Your task to perform on an android device: add a label to a message in the gmail app Image 0: 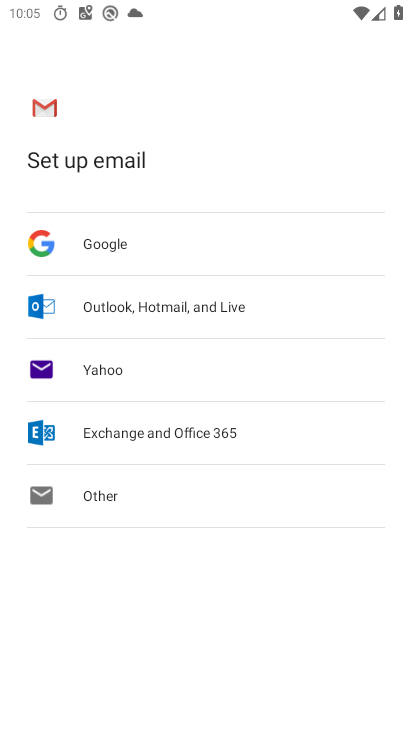
Step 0: press back button
Your task to perform on an android device: add a label to a message in the gmail app Image 1: 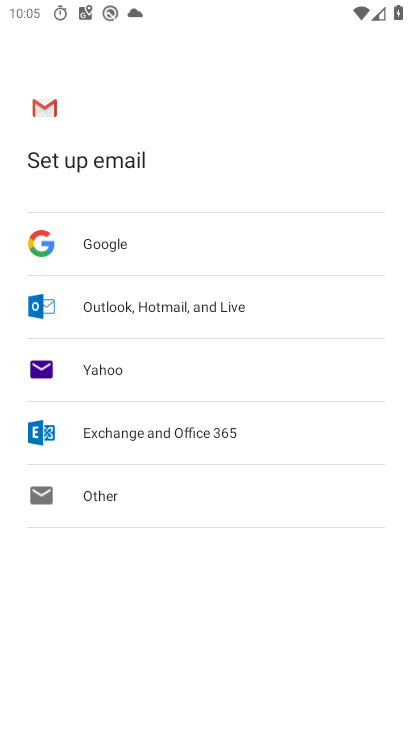
Step 1: press back button
Your task to perform on an android device: add a label to a message in the gmail app Image 2: 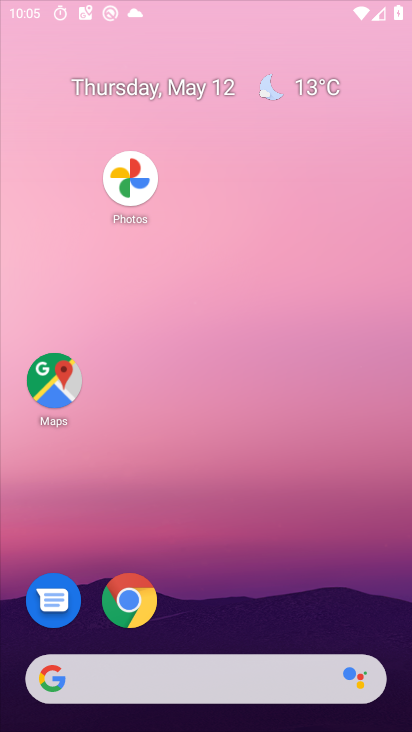
Step 2: press back button
Your task to perform on an android device: add a label to a message in the gmail app Image 3: 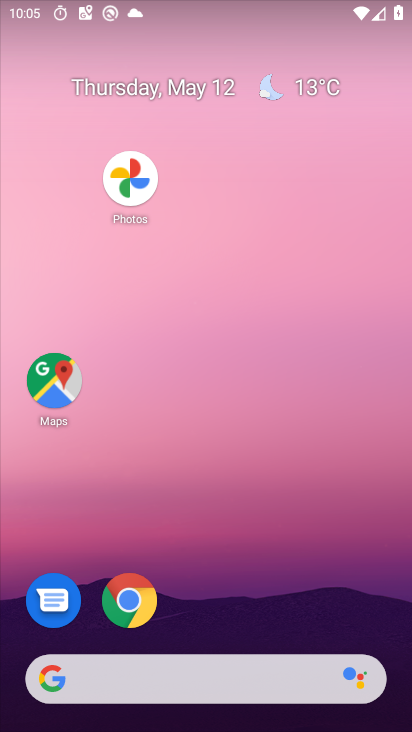
Step 3: drag from (291, 509) to (110, 42)
Your task to perform on an android device: add a label to a message in the gmail app Image 4: 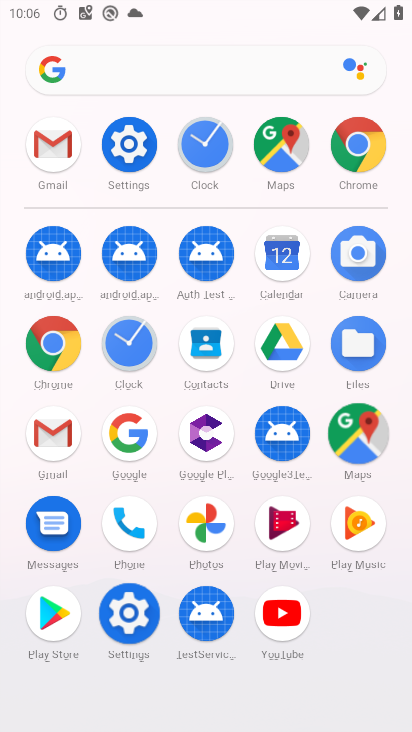
Step 4: click (56, 420)
Your task to perform on an android device: add a label to a message in the gmail app Image 5: 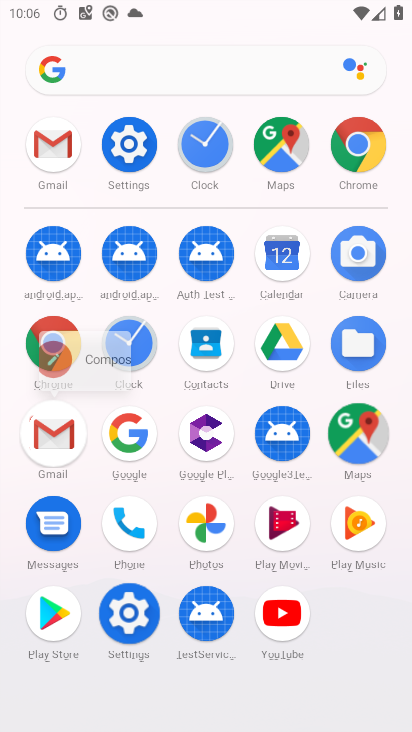
Step 5: click (51, 421)
Your task to perform on an android device: add a label to a message in the gmail app Image 6: 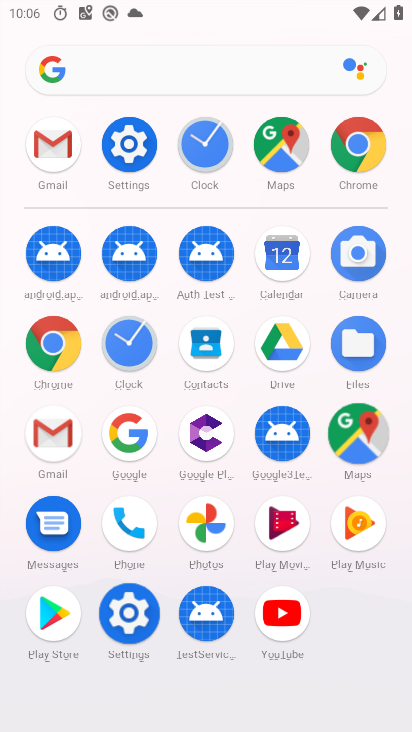
Step 6: click (46, 140)
Your task to perform on an android device: add a label to a message in the gmail app Image 7: 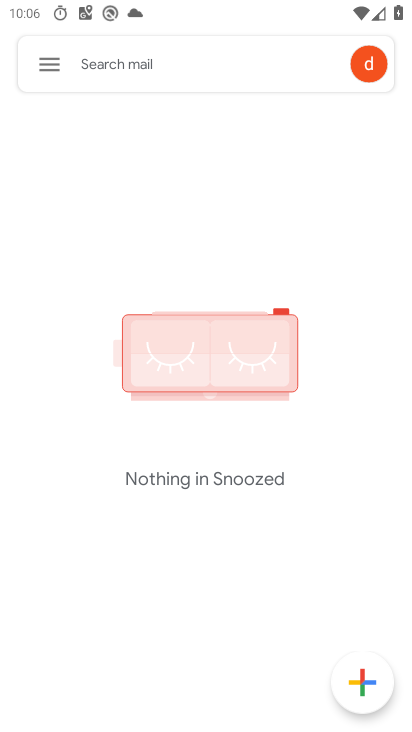
Step 7: click (58, 64)
Your task to perform on an android device: add a label to a message in the gmail app Image 8: 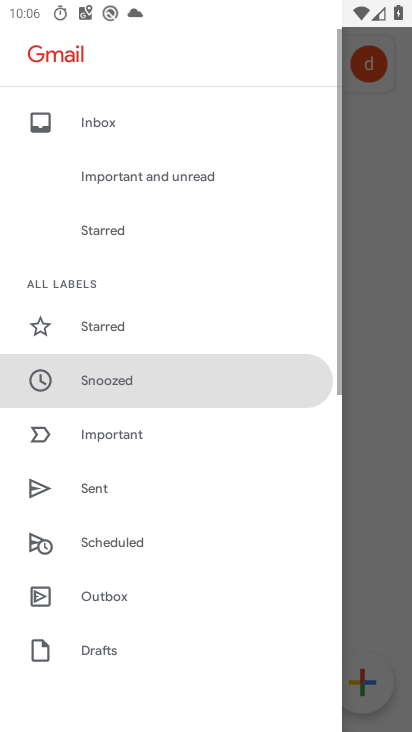
Step 8: click (58, 65)
Your task to perform on an android device: add a label to a message in the gmail app Image 9: 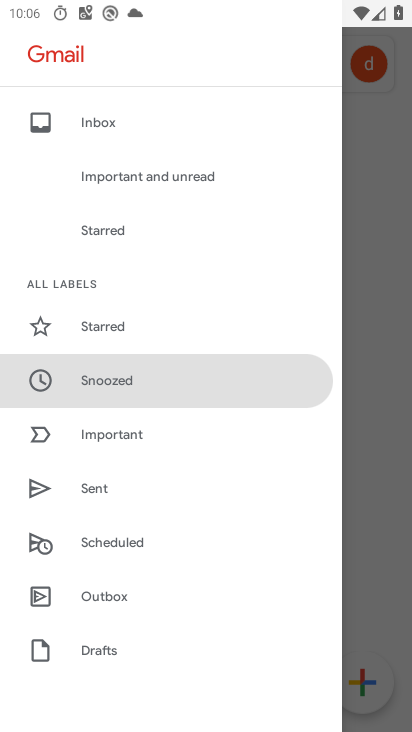
Step 9: drag from (159, 540) to (66, 68)
Your task to perform on an android device: add a label to a message in the gmail app Image 10: 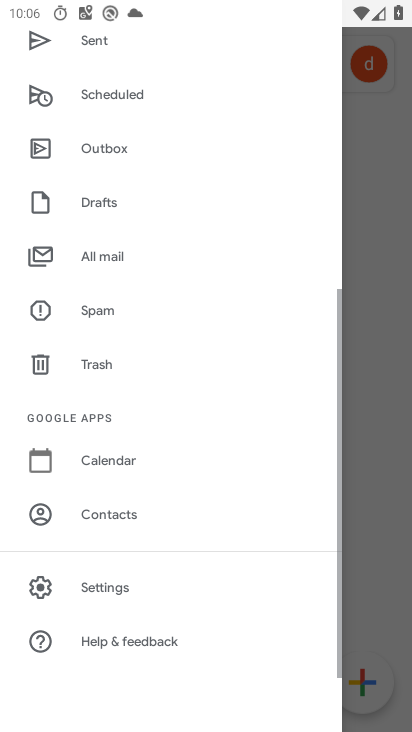
Step 10: drag from (197, 412) to (95, 9)
Your task to perform on an android device: add a label to a message in the gmail app Image 11: 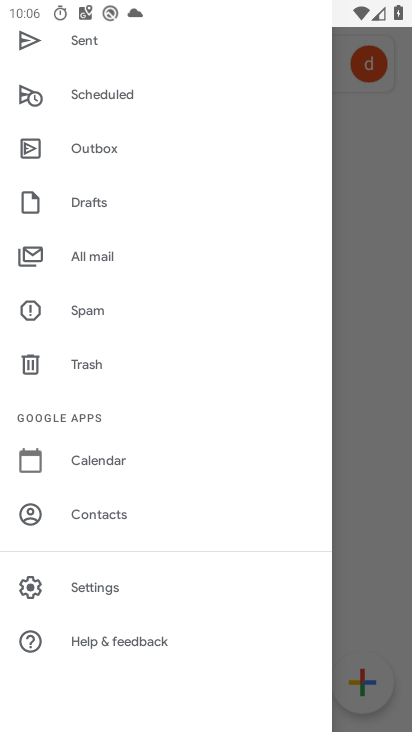
Step 11: drag from (151, 405) to (98, 27)
Your task to perform on an android device: add a label to a message in the gmail app Image 12: 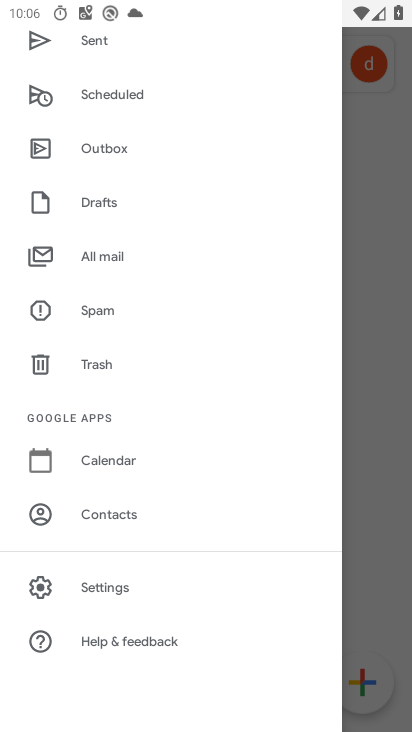
Step 12: click (104, 248)
Your task to perform on an android device: add a label to a message in the gmail app Image 13: 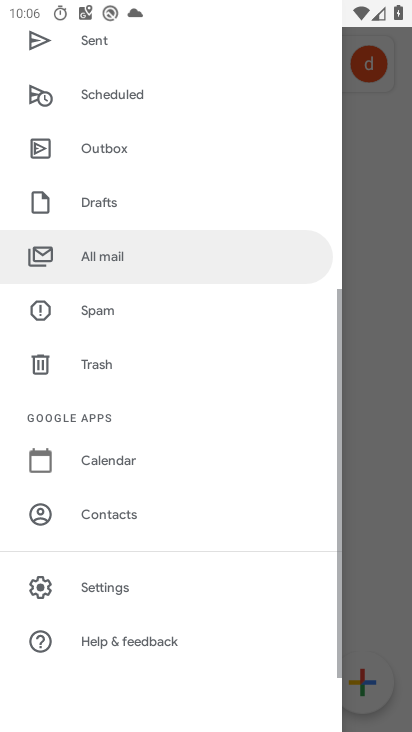
Step 13: click (104, 249)
Your task to perform on an android device: add a label to a message in the gmail app Image 14: 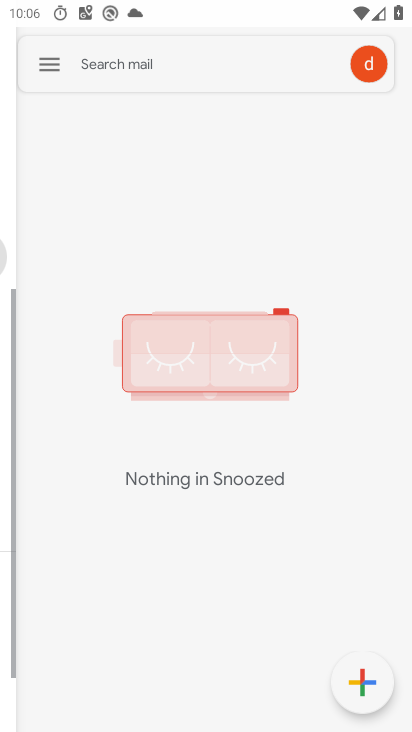
Step 14: click (104, 251)
Your task to perform on an android device: add a label to a message in the gmail app Image 15: 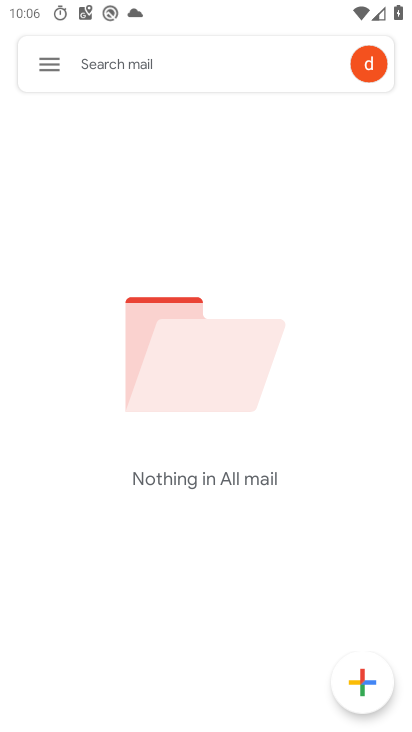
Step 15: task complete